Your task to perform on an android device: change notification settings in the gmail app Image 0: 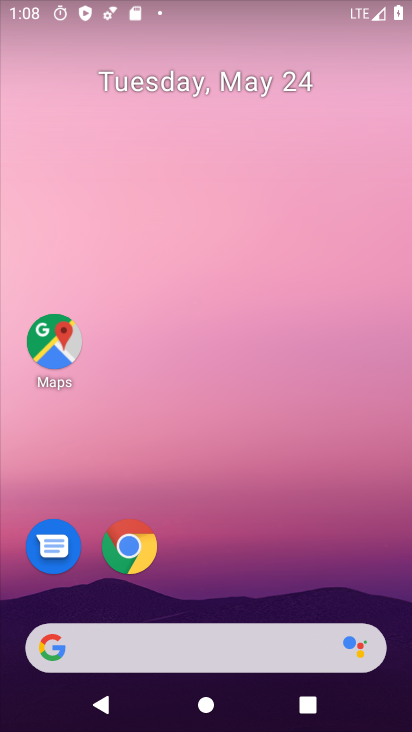
Step 0: drag from (192, 545) to (229, 91)
Your task to perform on an android device: change notification settings in the gmail app Image 1: 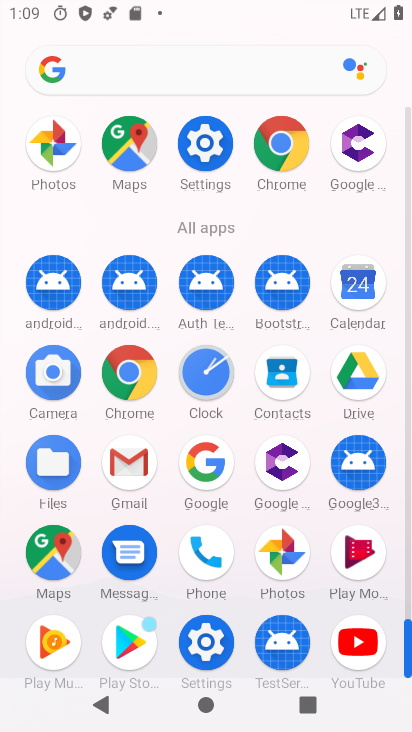
Step 1: click (129, 460)
Your task to perform on an android device: change notification settings in the gmail app Image 2: 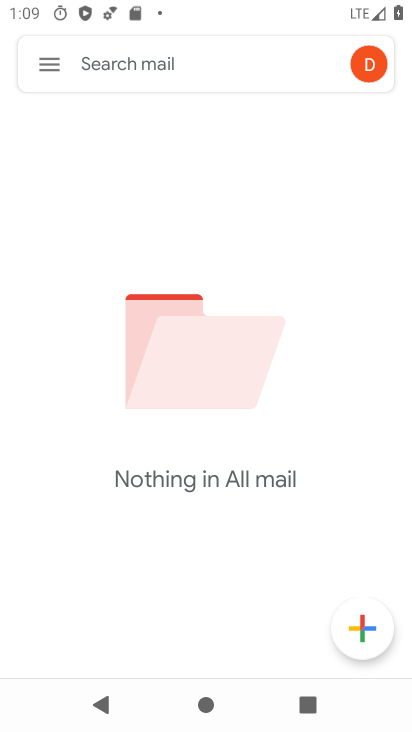
Step 2: drag from (201, 499) to (193, 307)
Your task to perform on an android device: change notification settings in the gmail app Image 3: 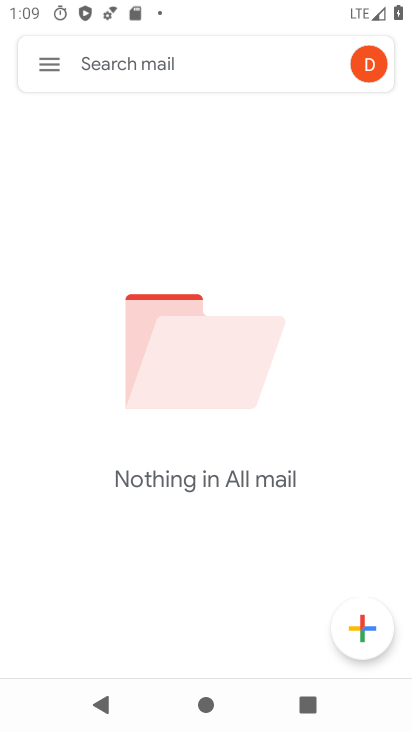
Step 3: click (33, 77)
Your task to perform on an android device: change notification settings in the gmail app Image 4: 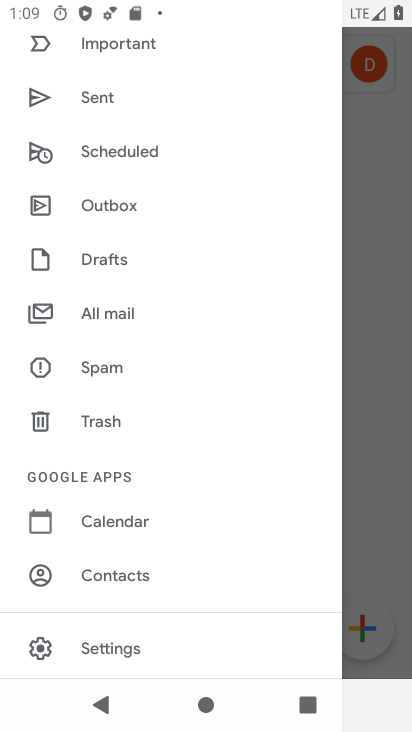
Step 4: drag from (176, 584) to (187, 58)
Your task to perform on an android device: change notification settings in the gmail app Image 5: 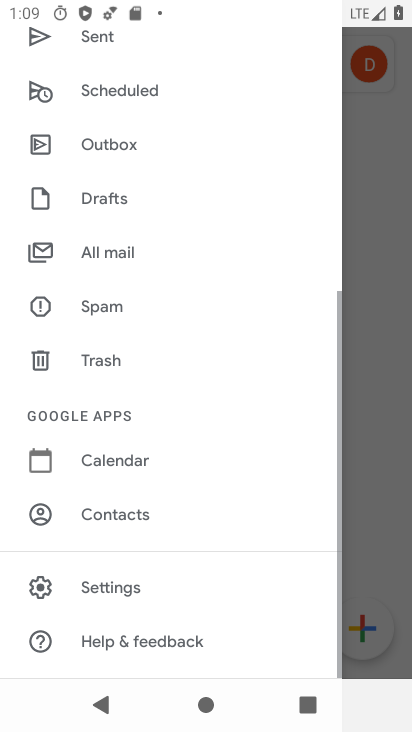
Step 5: click (118, 580)
Your task to perform on an android device: change notification settings in the gmail app Image 6: 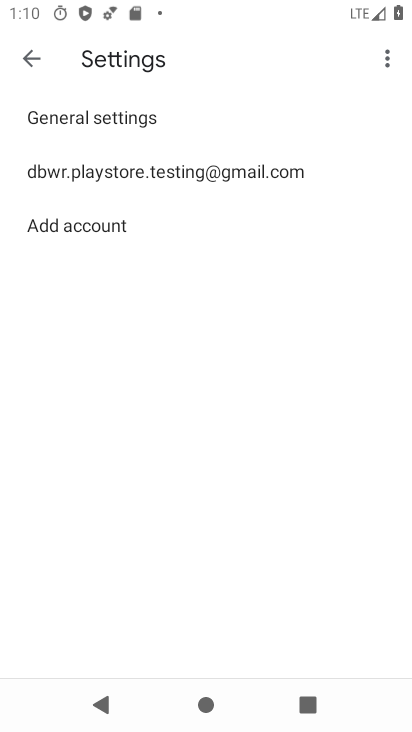
Step 6: drag from (219, 466) to (219, 90)
Your task to perform on an android device: change notification settings in the gmail app Image 7: 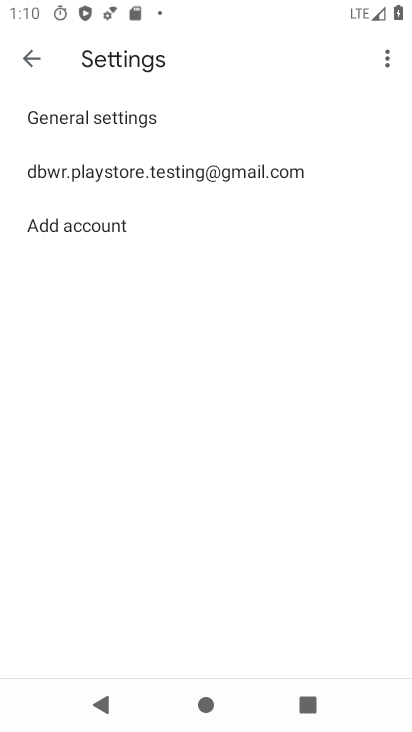
Step 7: click (201, 169)
Your task to perform on an android device: change notification settings in the gmail app Image 8: 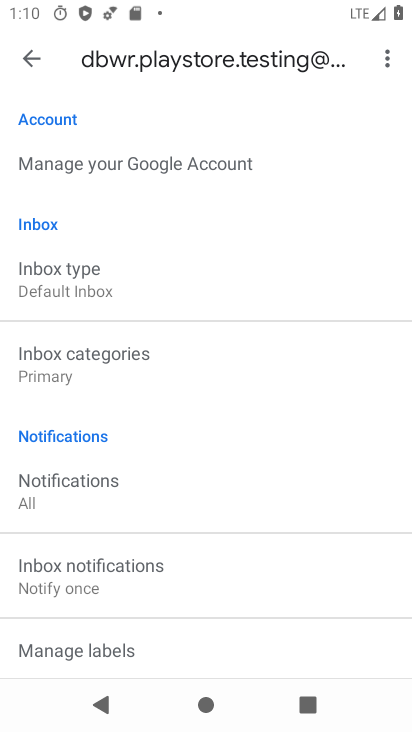
Step 8: drag from (167, 495) to (243, 99)
Your task to perform on an android device: change notification settings in the gmail app Image 9: 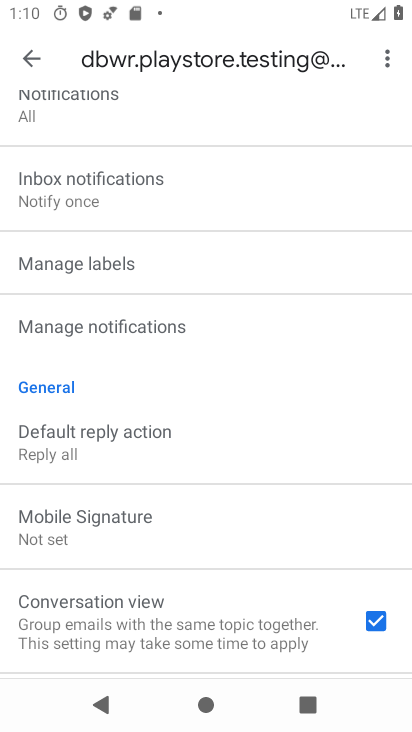
Step 9: drag from (172, 441) to (188, 79)
Your task to perform on an android device: change notification settings in the gmail app Image 10: 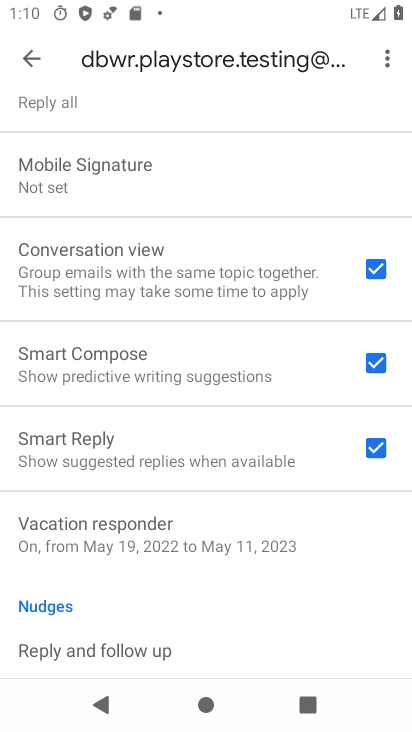
Step 10: drag from (235, 581) to (286, 151)
Your task to perform on an android device: change notification settings in the gmail app Image 11: 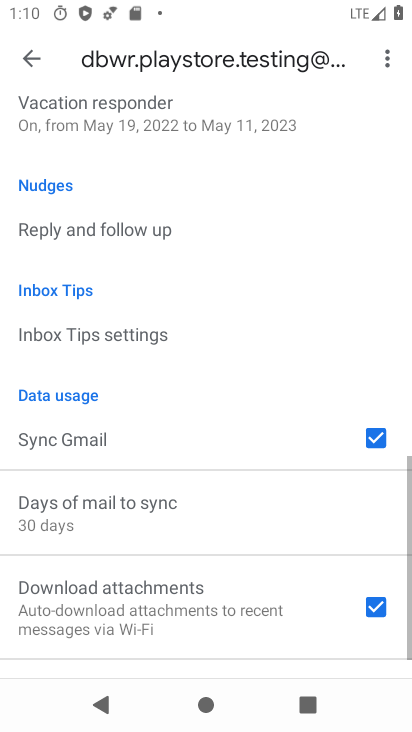
Step 11: drag from (290, 133) to (277, 715)
Your task to perform on an android device: change notification settings in the gmail app Image 12: 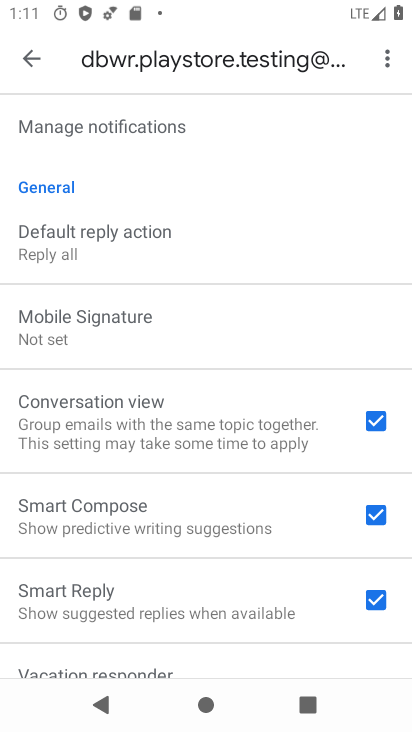
Step 12: drag from (200, 534) to (275, 253)
Your task to perform on an android device: change notification settings in the gmail app Image 13: 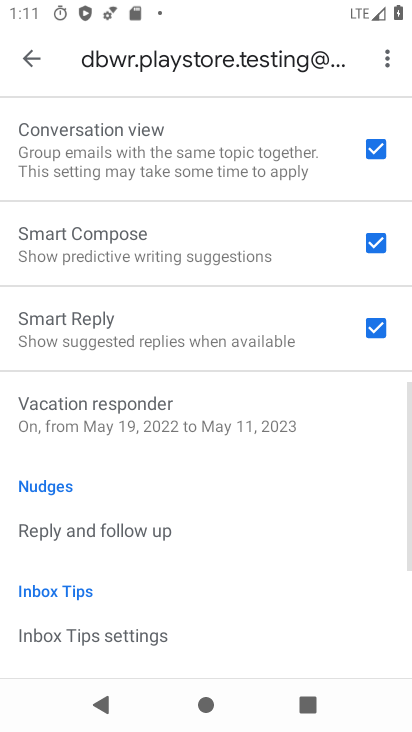
Step 13: drag from (238, 217) to (270, 635)
Your task to perform on an android device: change notification settings in the gmail app Image 14: 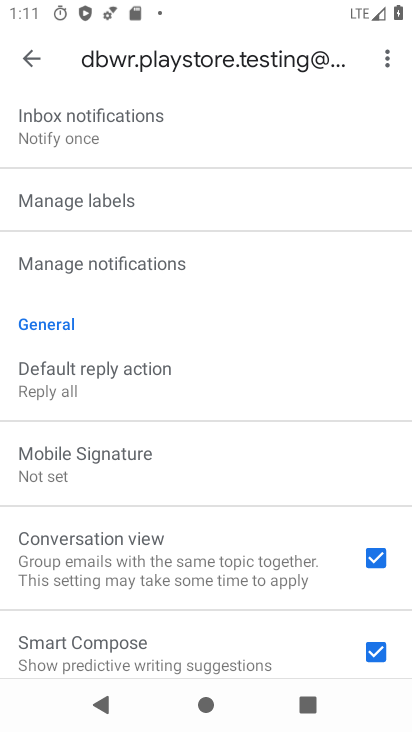
Step 14: click (157, 261)
Your task to perform on an android device: change notification settings in the gmail app Image 15: 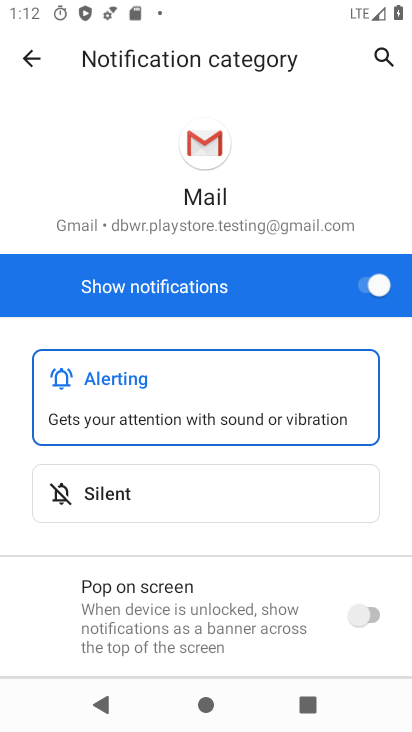
Step 15: click (359, 285)
Your task to perform on an android device: change notification settings in the gmail app Image 16: 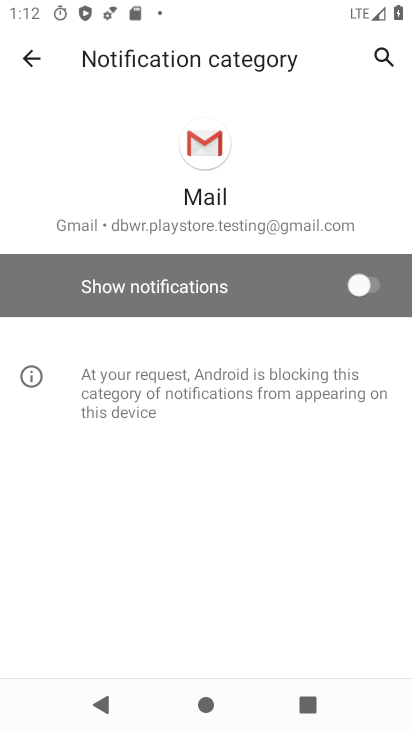
Step 16: task complete